Your task to perform on an android device: Search for vegetarian restaurants on Maps Image 0: 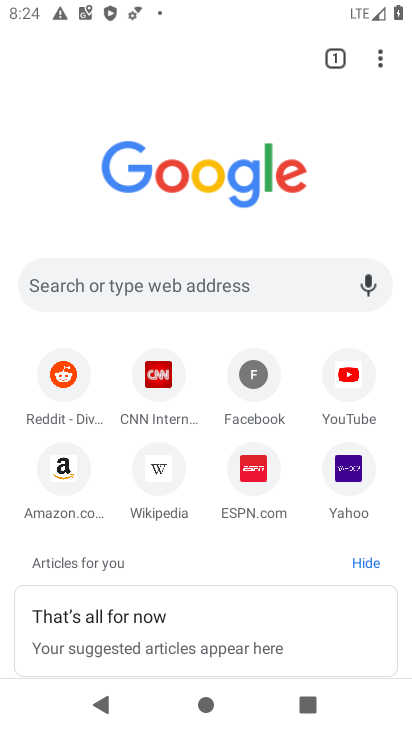
Step 0: press home button
Your task to perform on an android device: Search for vegetarian restaurants on Maps Image 1: 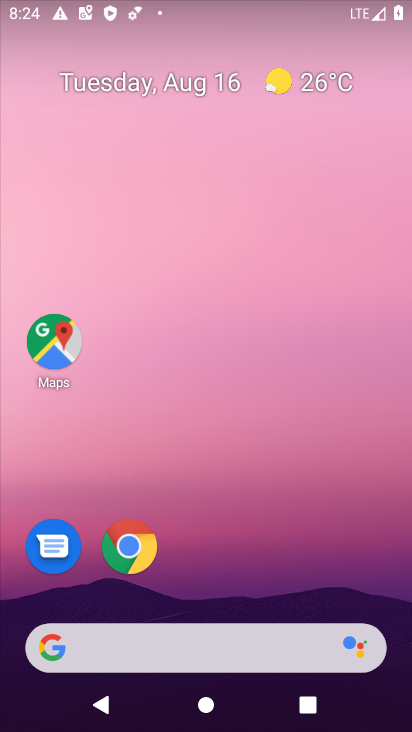
Step 1: click (42, 334)
Your task to perform on an android device: Search for vegetarian restaurants on Maps Image 2: 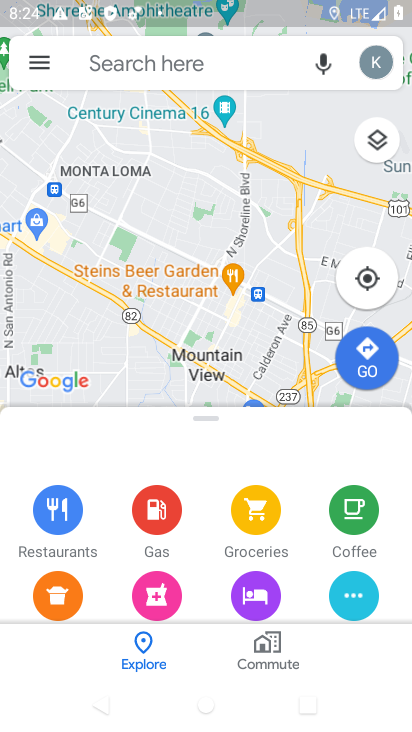
Step 2: click (183, 56)
Your task to perform on an android device: Search for vegetarian restaurants on Maps Image 3: 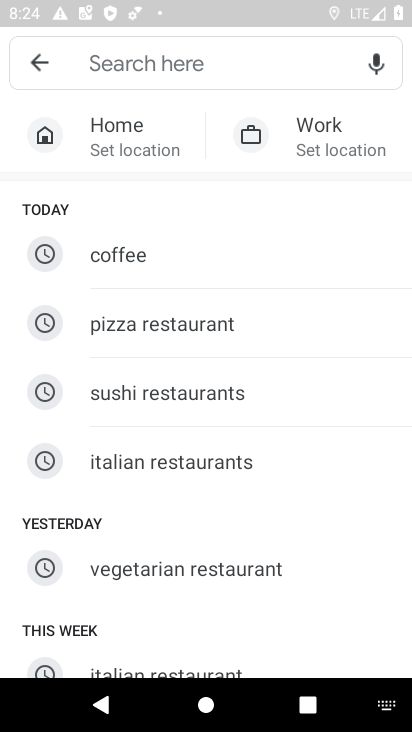
Step 3: click (224, 575)
Your task to perform on an android device: Search for vegetarian restaurants on Maps Image 4: 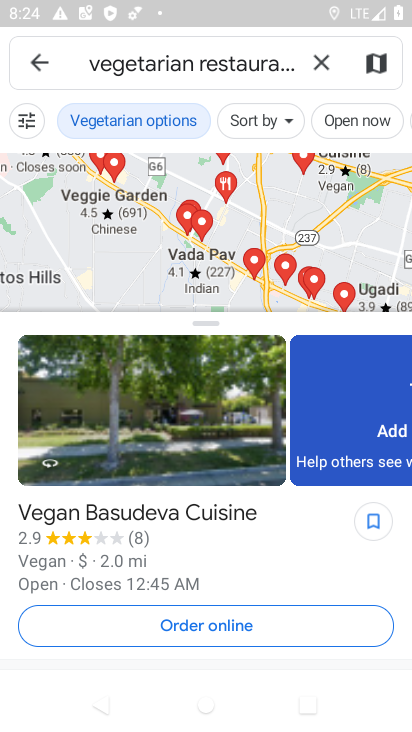
Step 4: task complete